Your task to perform on an android device: snooze an email in the gmail app Image 0: 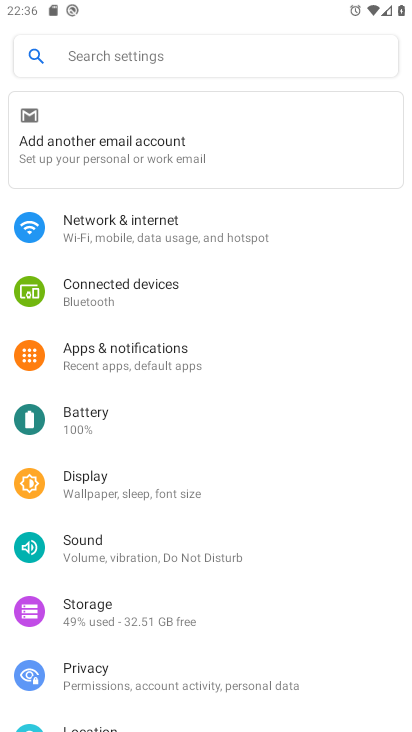
Step 0: press home button
Your task to perform on an android device: snooze an email in the gmail app Image 1: 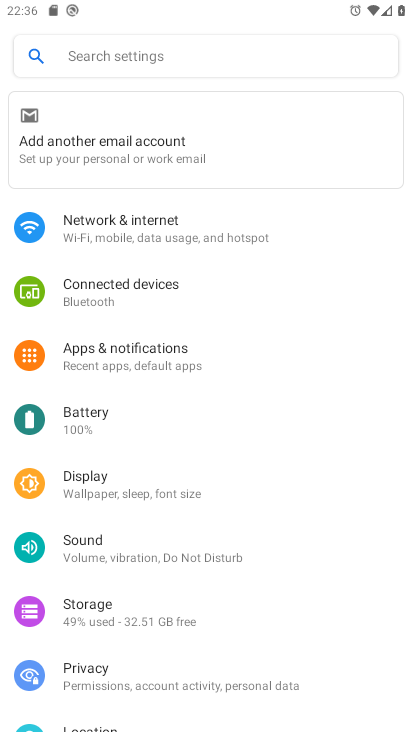
Step 1: press home button
Your task to perform on an android device: snooze an email in the gmail app Image 2: 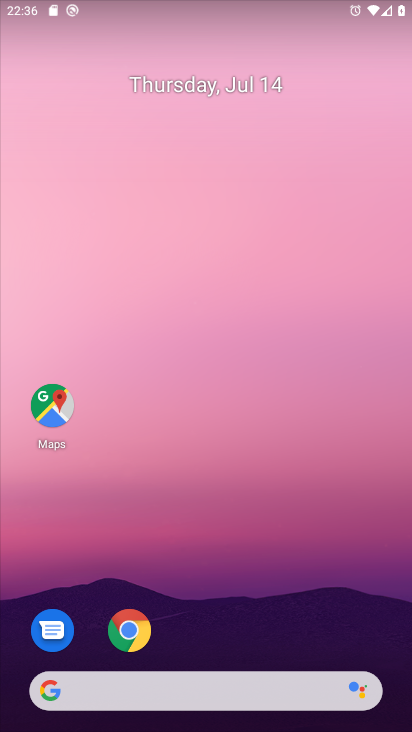
Step 2: drag from (146, 684) to (173, 71)
Your task to perform on an android device: snooze an email in the gmail app Image 3: 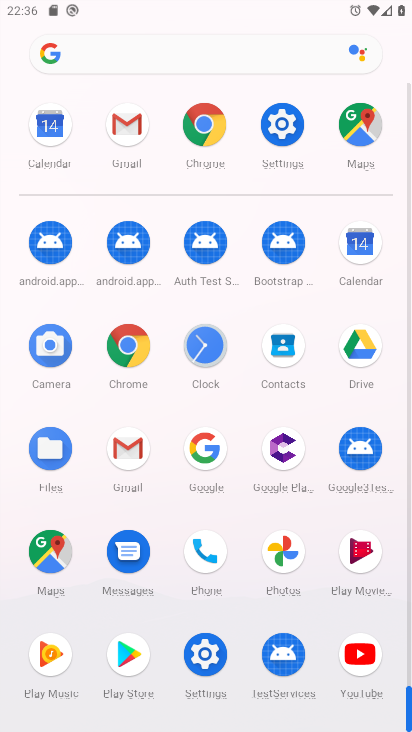
Step 3: click (121, 123)
Your task to perform on an android device: snooze an email in the gmail app Image 4: 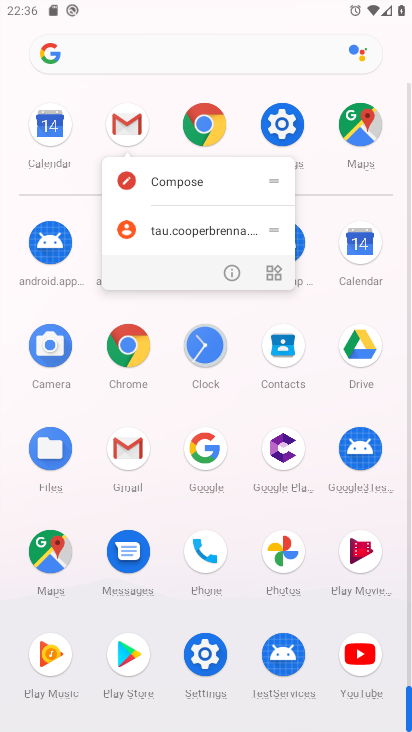
Step 4: click (237, 268)
Your task to perform on an android device: snooze an email in the gmail app Image 5: 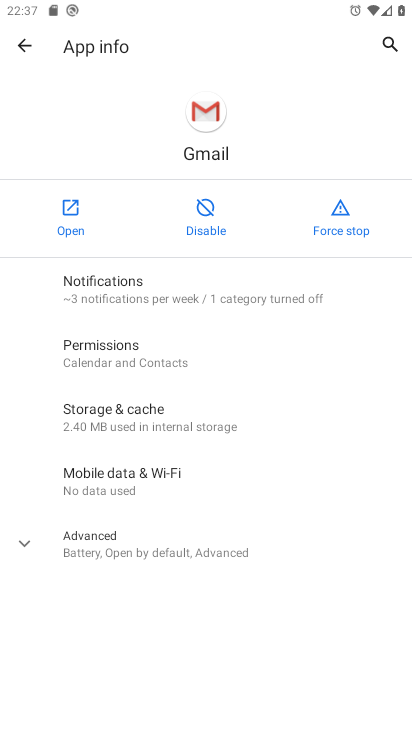
Step 5: click (68, 213)
Your task to perform on an android device: snooze an email in the gmail app Image 6: 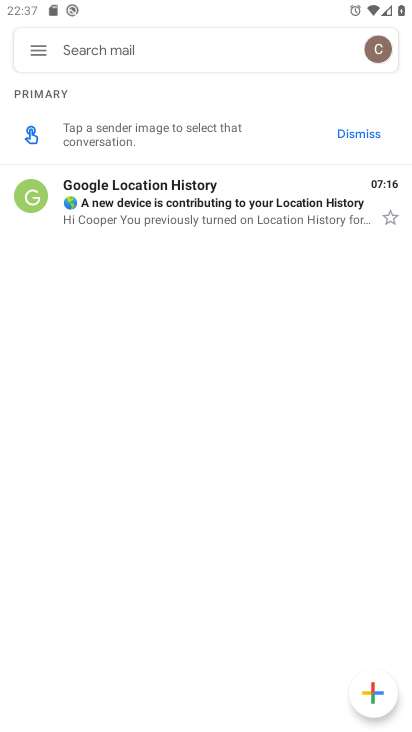
Step 6: drag from (174, 526) to (226, 109)
Your task to perform on an android device: snooze an email in the gmail app Image 7: 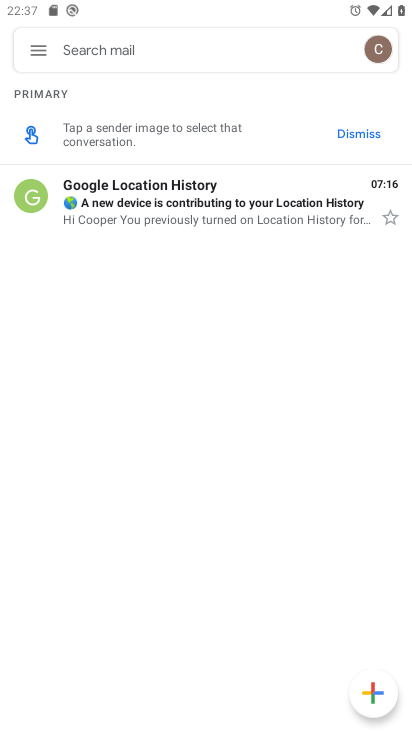
Step 7: drag from (235, 580) to (204, 323)
Your task to perform on an android device: snooze an email in the gmail app Image 8: 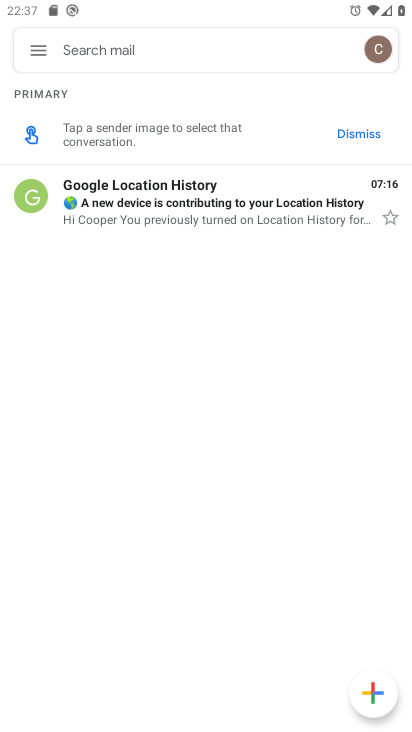
Step 8: click (16, 49)
Your task to perform on an android device: snooze an email in the gmail app Image 9: 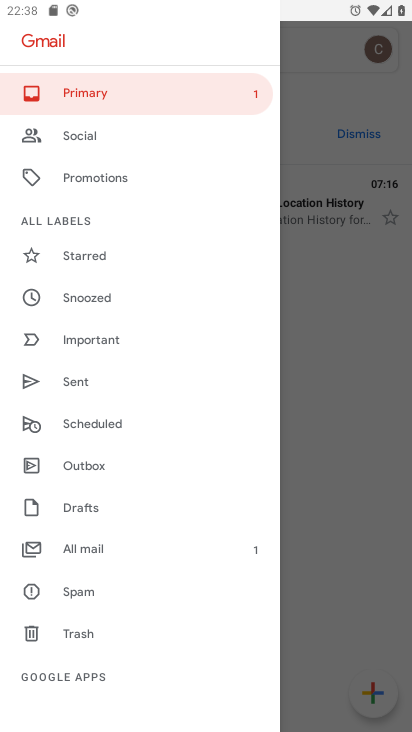
Step 9: click (79, 301)
Your task to perform on an android device: snooze an email in the gmail app Image 10: 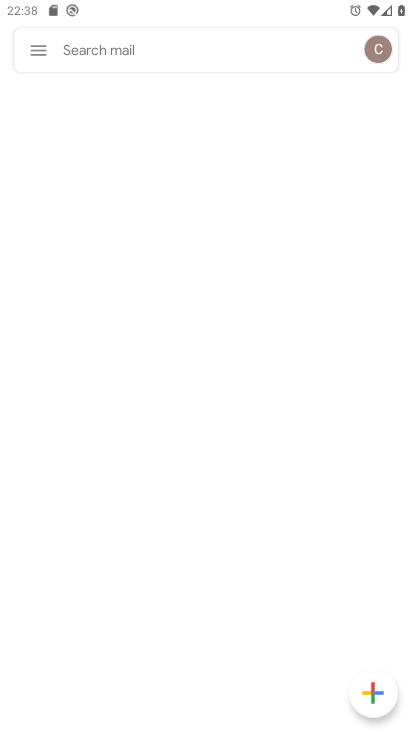
Step 10: task complete